Your task to perform on an android device: Open Google Chrome Image 0: 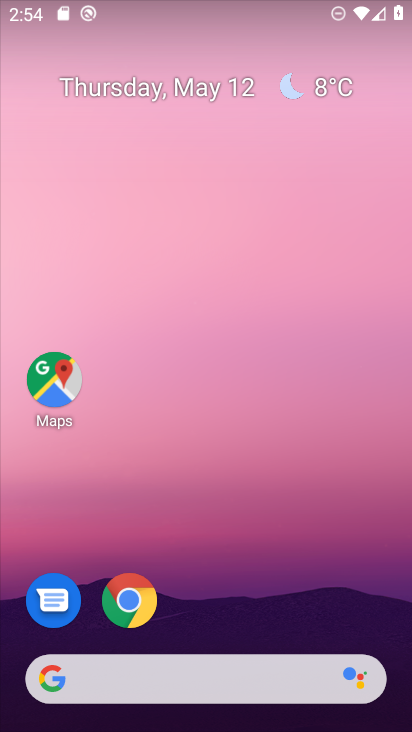
Step 0: click (133, 598)
Your task to perform on an android device: Open Google Chrome Image 1: 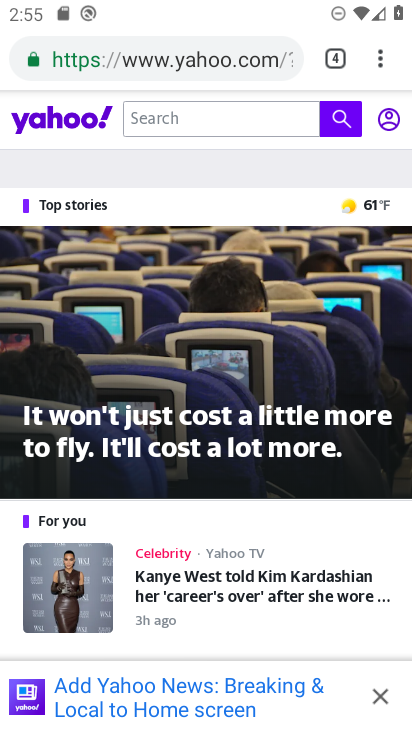
Step 1: task complete